Your task to perform on an android device: check storage Image 0: 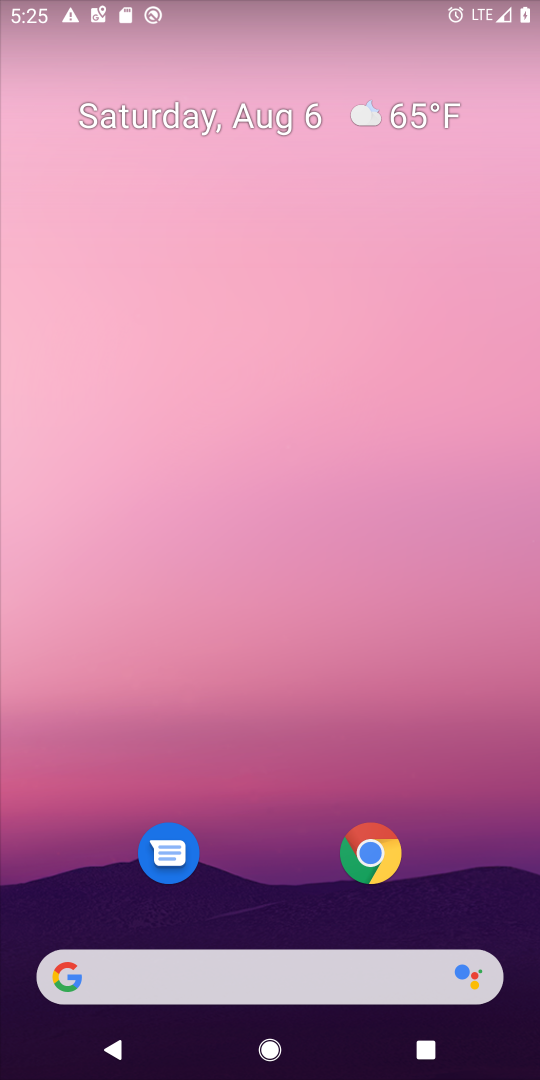
Step 0: drag from (295, 895) to (369, 18)
Your task to perform on an android device: check storage Image 1: 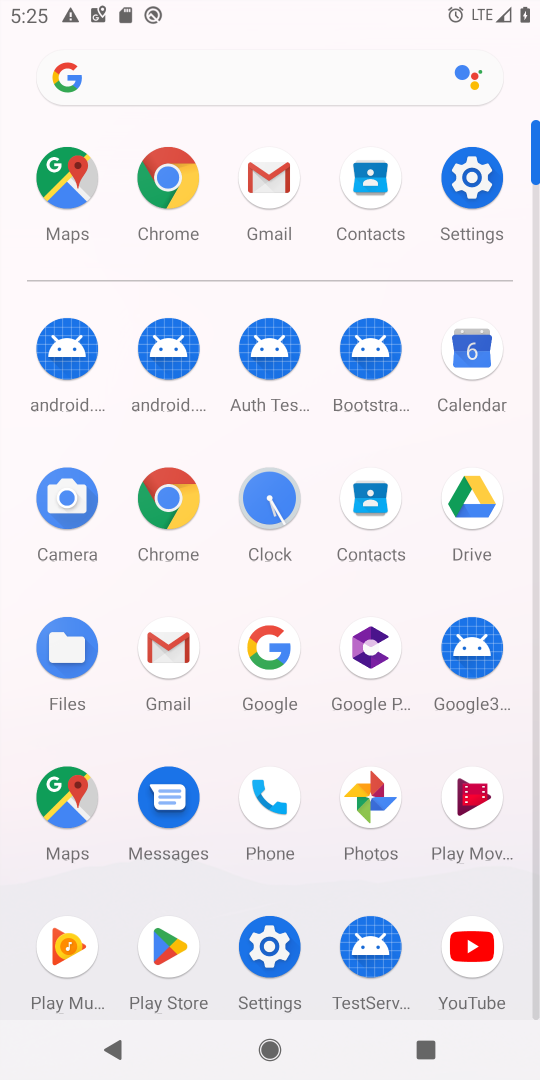
Step 1: click (474, 177)
Your task to perform on an android device: check storage Image 2: 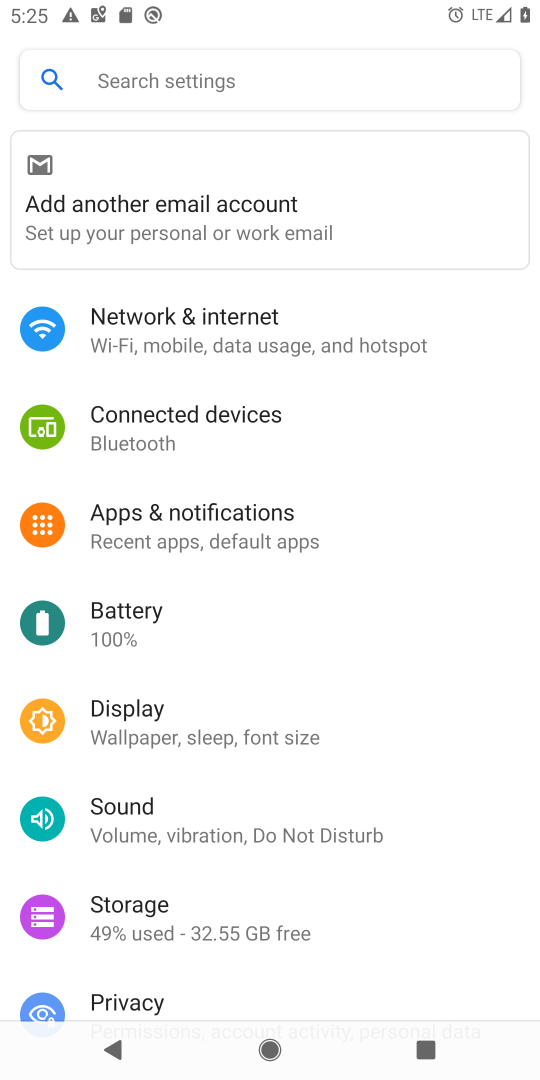
Step 2: click (169, 915)
Your task to perform on an android device: check storage Image 3: 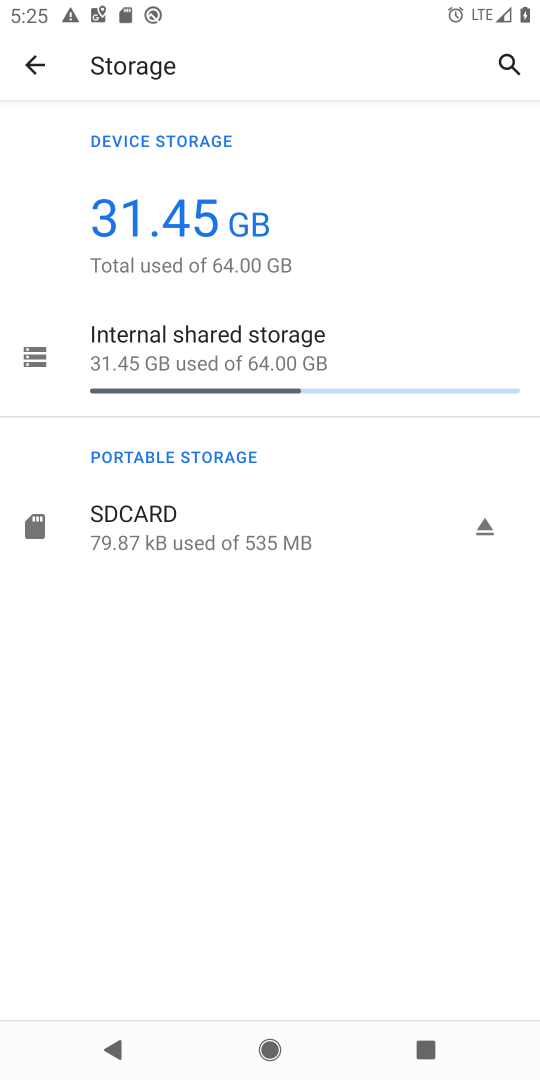
Step 3: task complete